Your task to perform on an android device: check google app version Image 0: 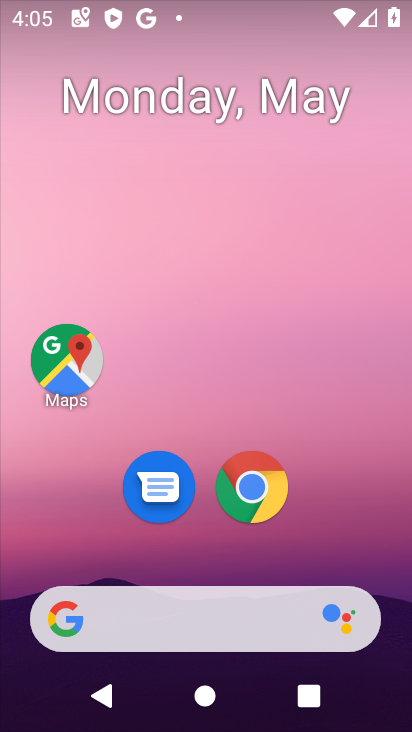
Step 0: drag from (330, 547) to (311, 5)
Your task to perform on an android device: check google app version Image 1: 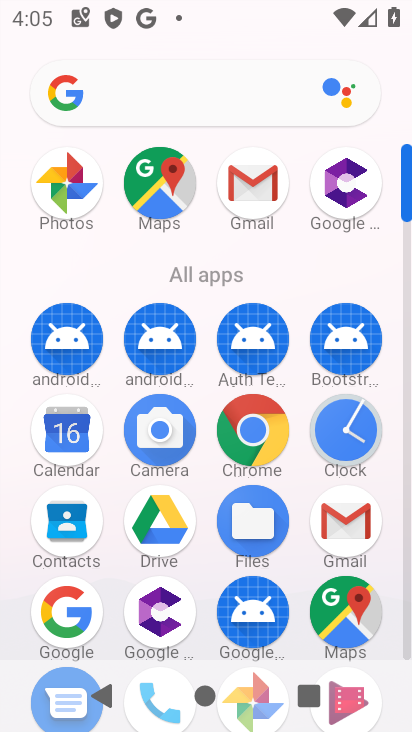
Step 1: click (66, 614)
Your task to perform on an android device: check google app version Image 2: 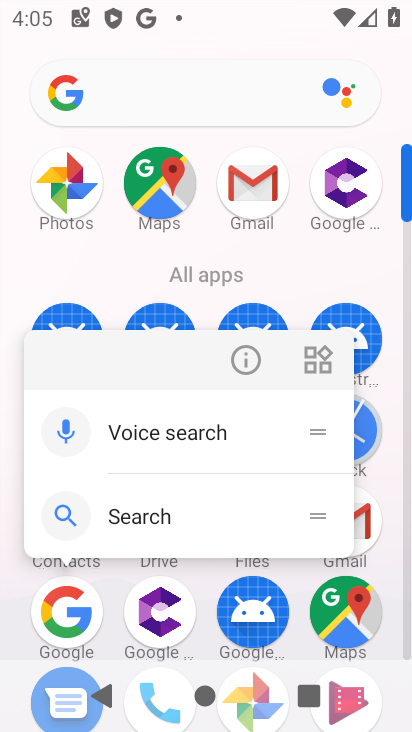
Step 2: click (245, 362)
Your task to perform on an android device: check google app version Image 3: 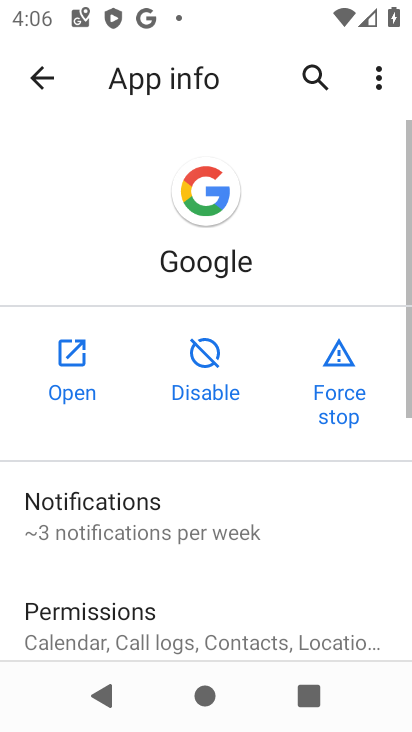
Step 3: drag from (179, 596) to (177, 61)
Your task to perform on an android device: check google app version Image 4: 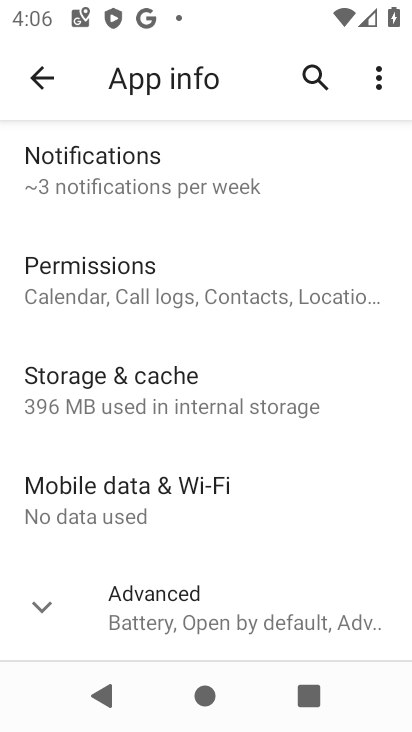
Step 4: drag from (144, 509) to (126, 182)
Your task to perform on an android device: check google app version Image 5: 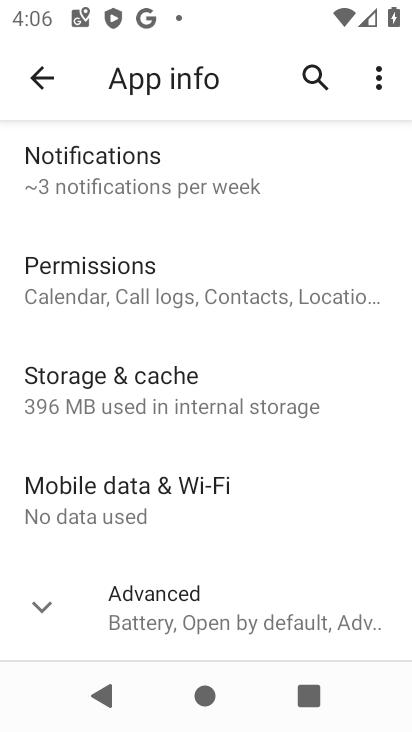
Step 5: click (42, 618)
Your task to perform on an android device: check google app version Image 6: 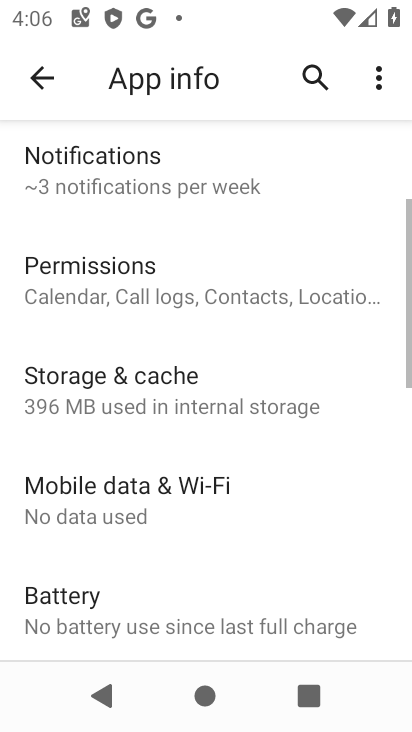
Step 6: drag from (176, 604) to (151, 159)
Your task to perform on an android device: check google app version Image 7: 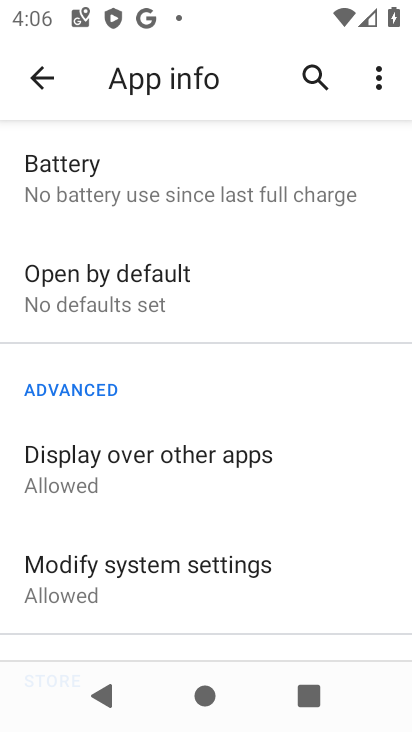
Step 7: drag from (150, 451) to (149, 112)
Your task to perform on an android device: check google app version Image 8: 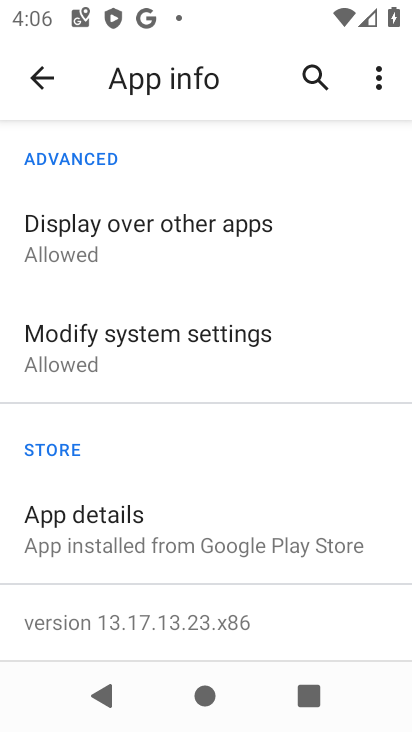
Step 8: drag from (125, 518) to (101, 131)
Your task to perform on an android device: check google app version Image 9: 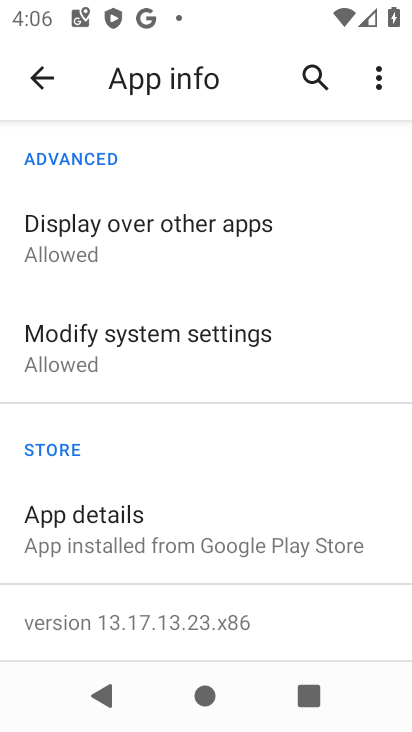
Step 9: click (58, 622)
Your task to perform on an android device: check google app version Image 10: 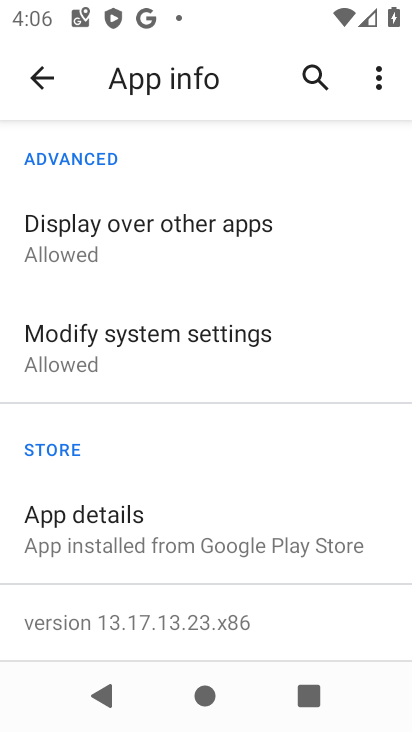
Step 10: task complete